Your task to perform on an android device: Go to Wikipedia Image 0: 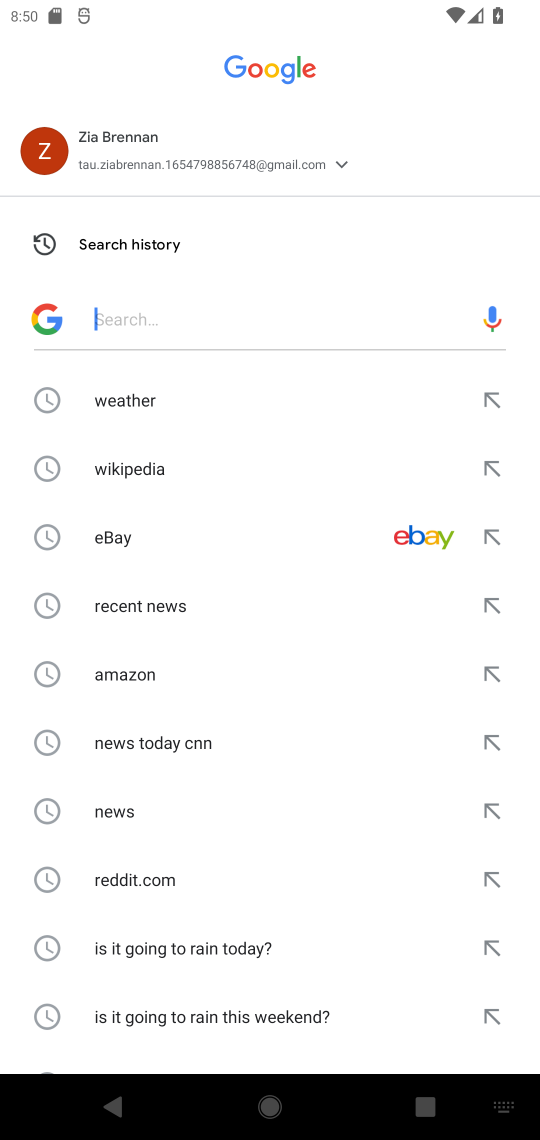
Step 0: press home button
Your task to perform on an android device: Go to Wikipedia Image 1: 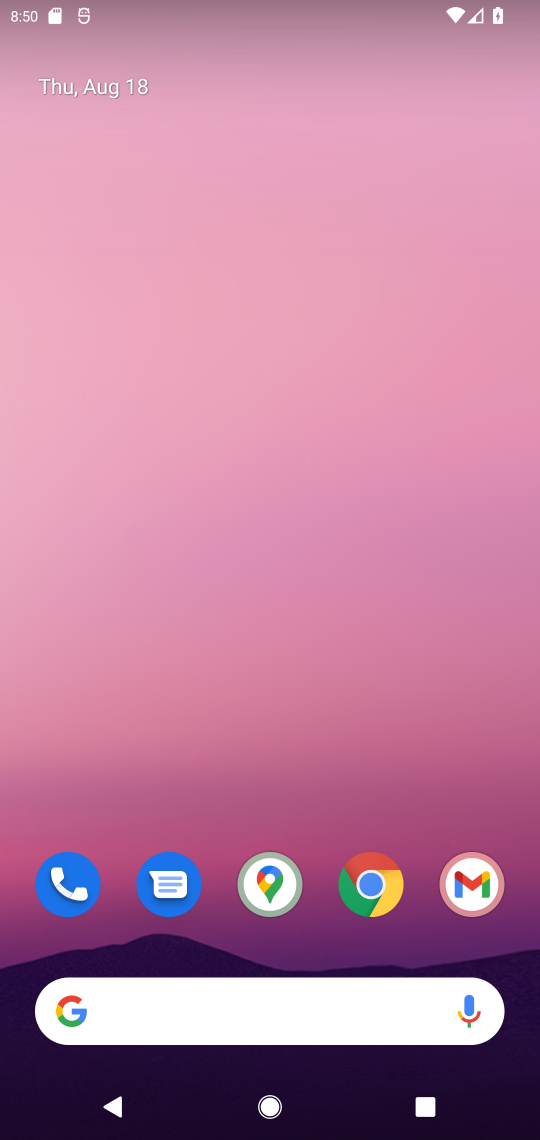
Step 1: click (286, 1013)
Your task to perform on an android device: Go to Wikipedia Image 2: 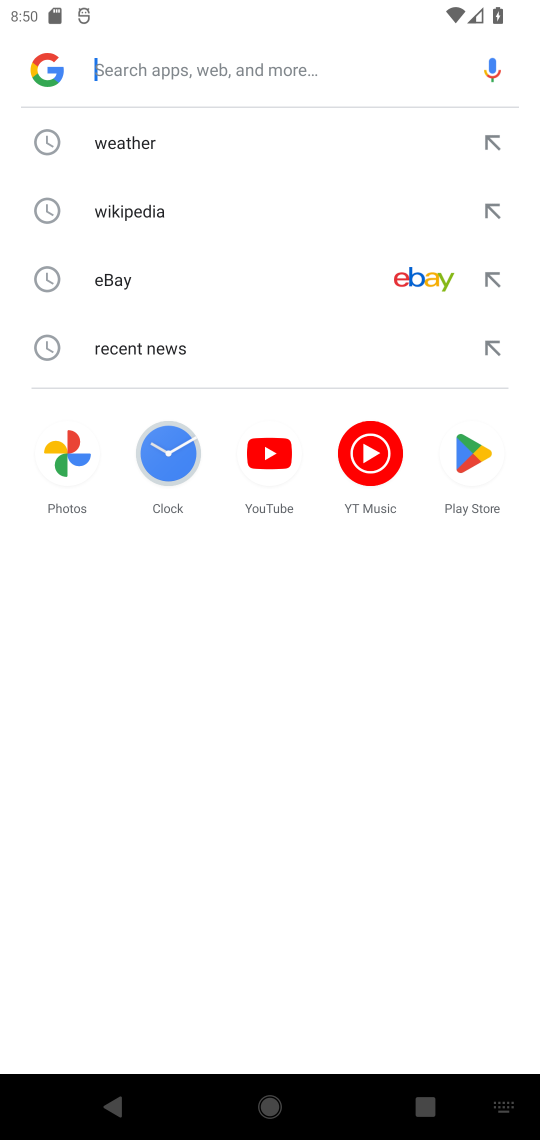
Step 2: click (51, 73)
Your task to perform on an android device: Go to Wikipedia Image 3: 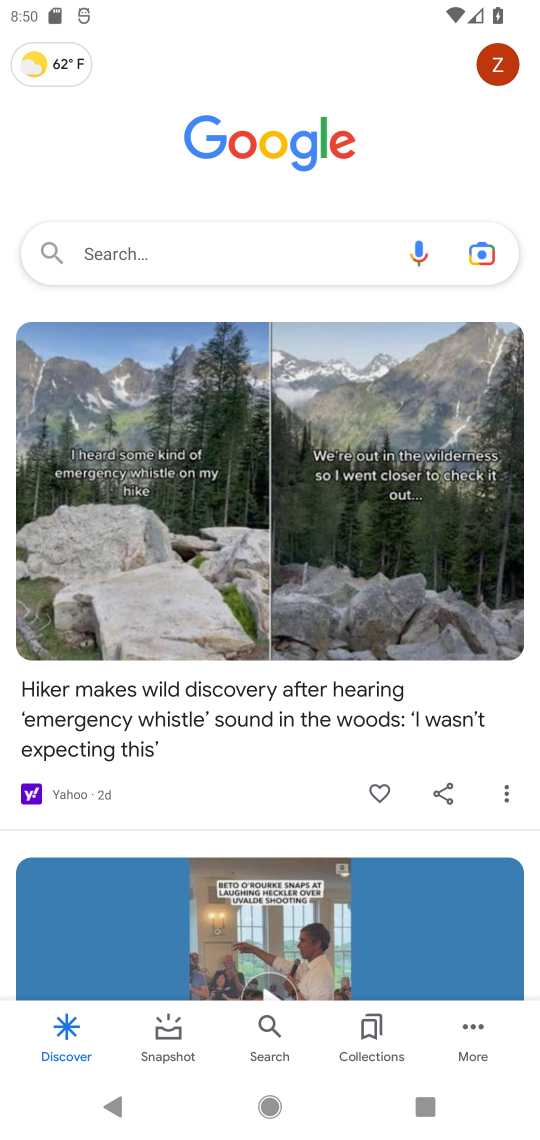
Step 3: press home button
Your task to perform on an android device: Go to Wikipedia Image 4: 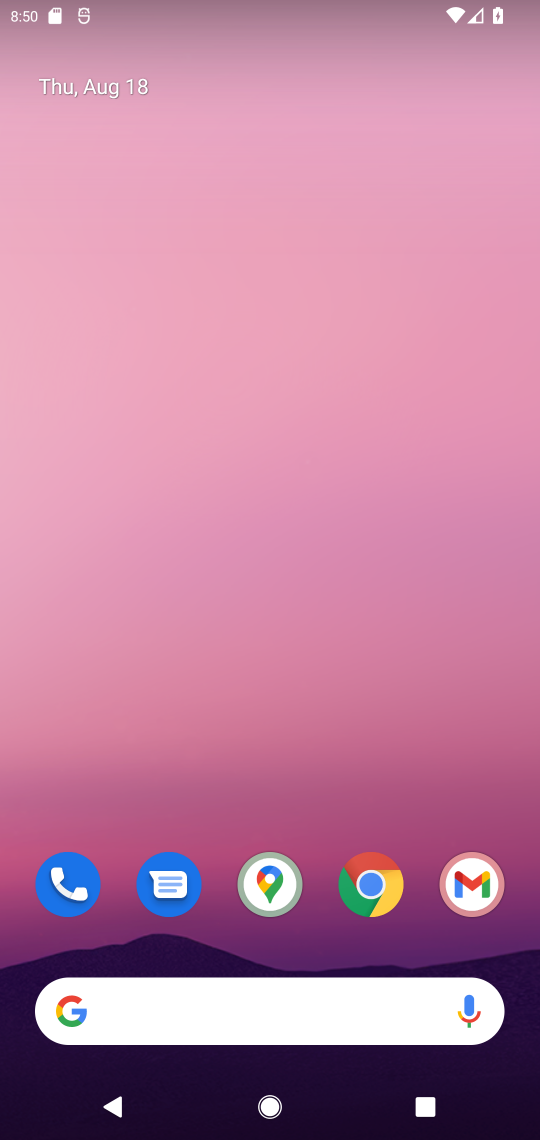
Step 4: click (383, 881)
Your task to perform on an android device: Go to Wikipedia Image 5: 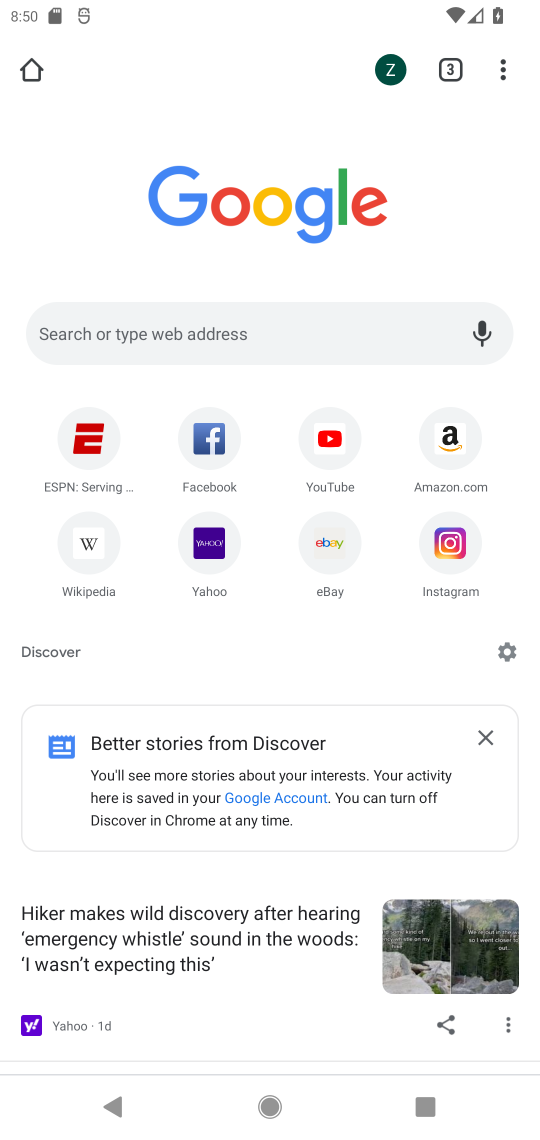
Step 5: click (77, 535)
Your task to perform on an android device: Go to Wikipedia Image 6: 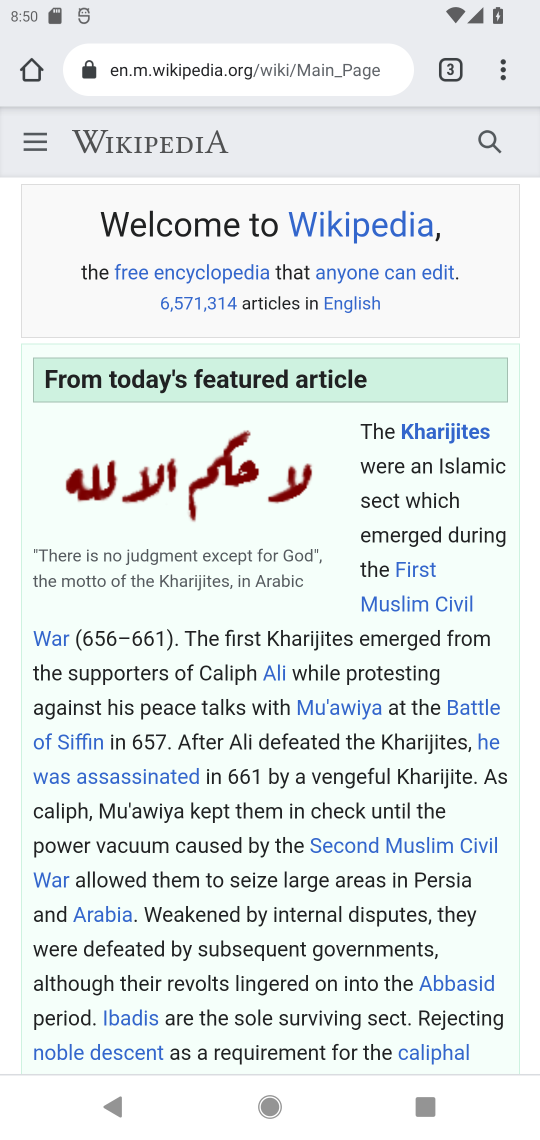
Step 6: task complete